Your task to perform on an android device: see tabs open on other devices in the chrome app Image 0: 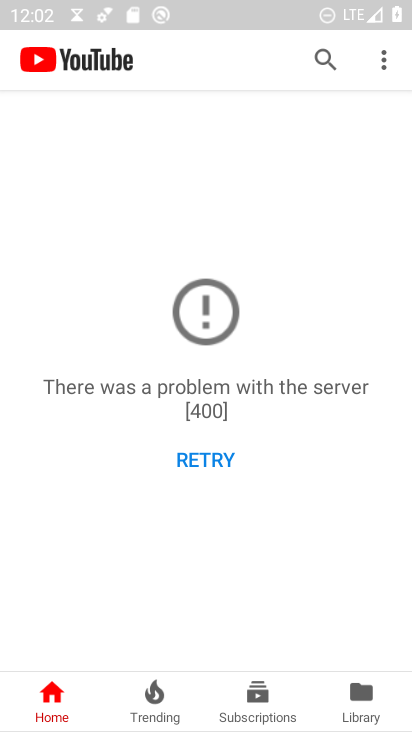
Step 0: press back button
Your task to perform on an android device: see tabs open on other devices in the chrome app Image 1: 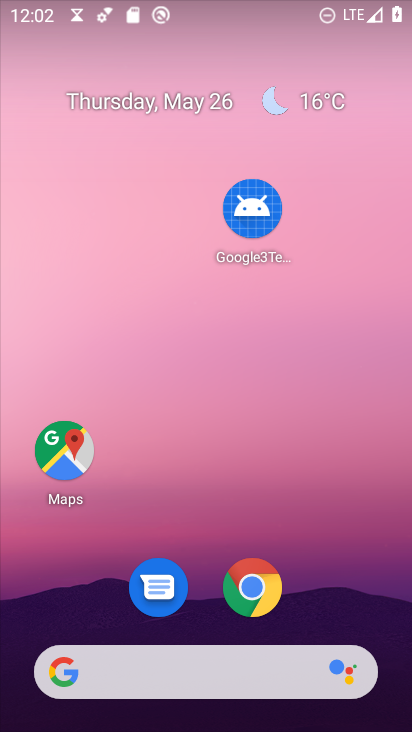
Step 1: click (267, 584)
Your task to perform on an android device: see tabs open on other devices in the chrome app Image 2: 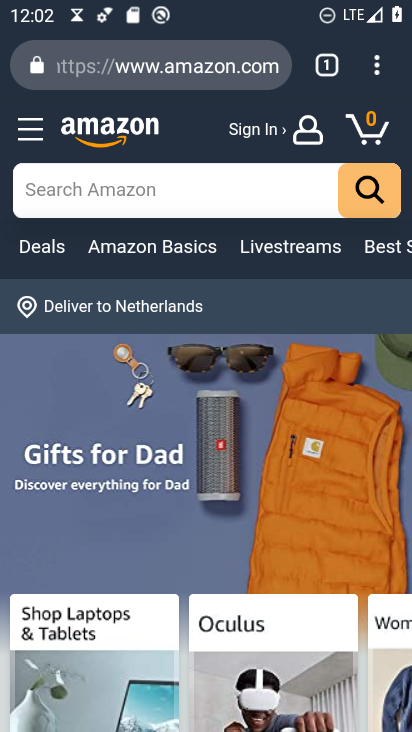
Step 2: task complete